Your task to perform on an android device: uninstall "LiveIn - Share Your Moment" Image 0: 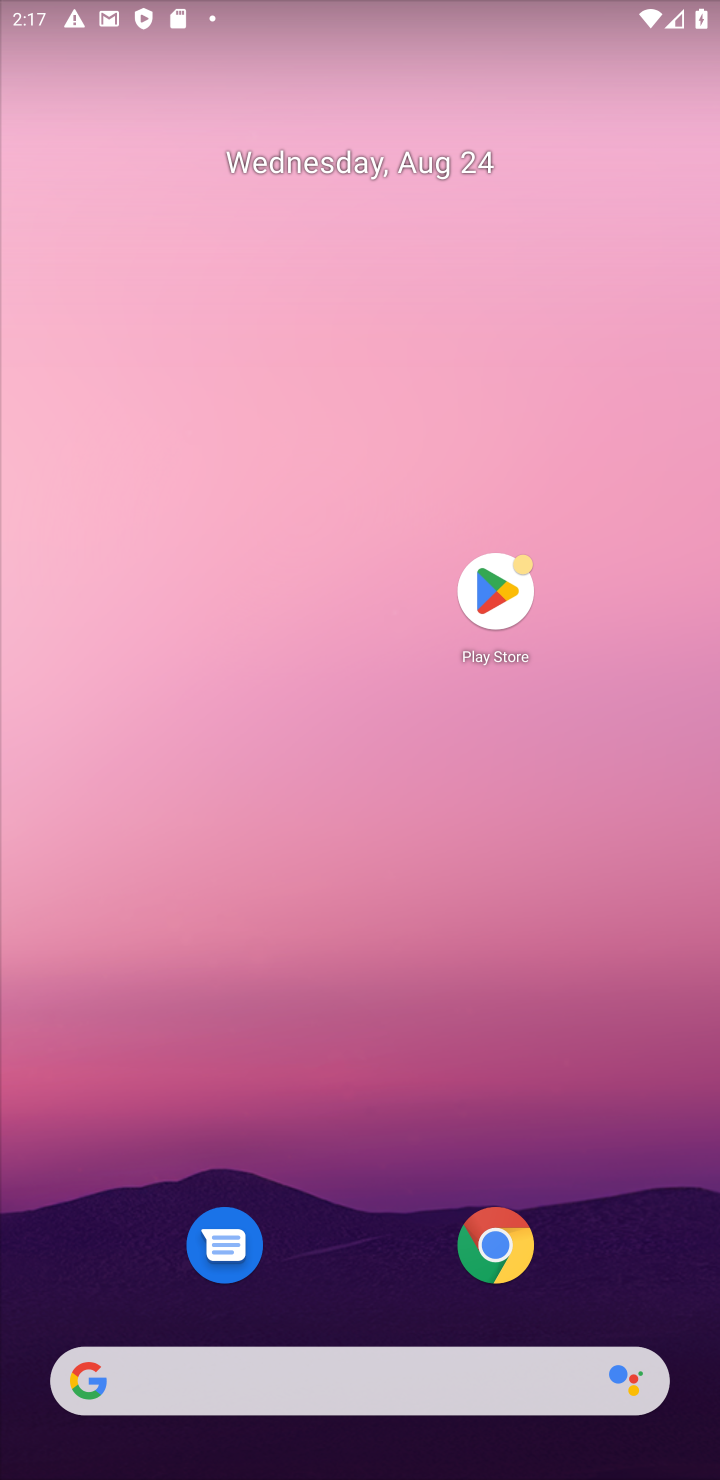
Step 0: click (505, 602)
Your task to perform on an android device: uninstall "LiveIn - Share Your Moment" Image 1: 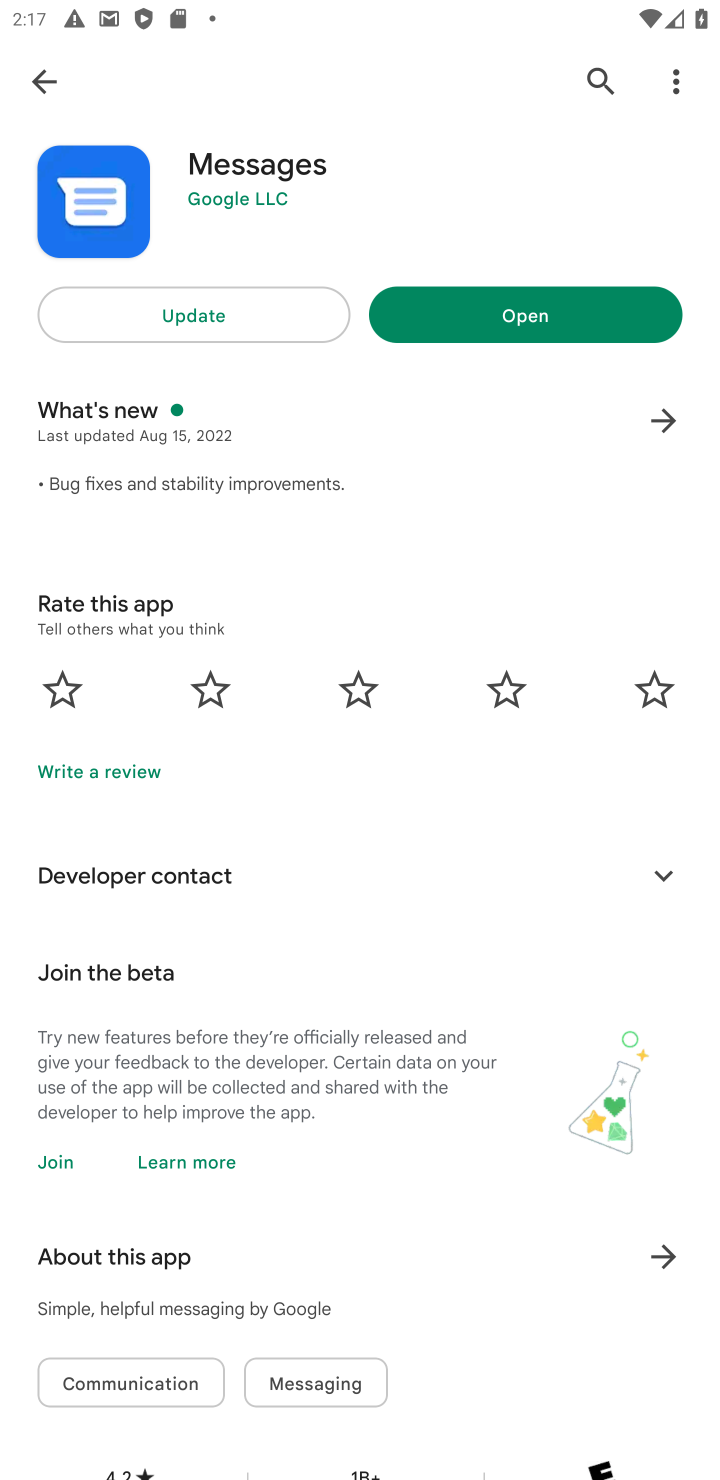
Step 1: click (590, 73)
Your task to perform on an android device: uninstall "LiveIn - Share Your Moment" Image 2: 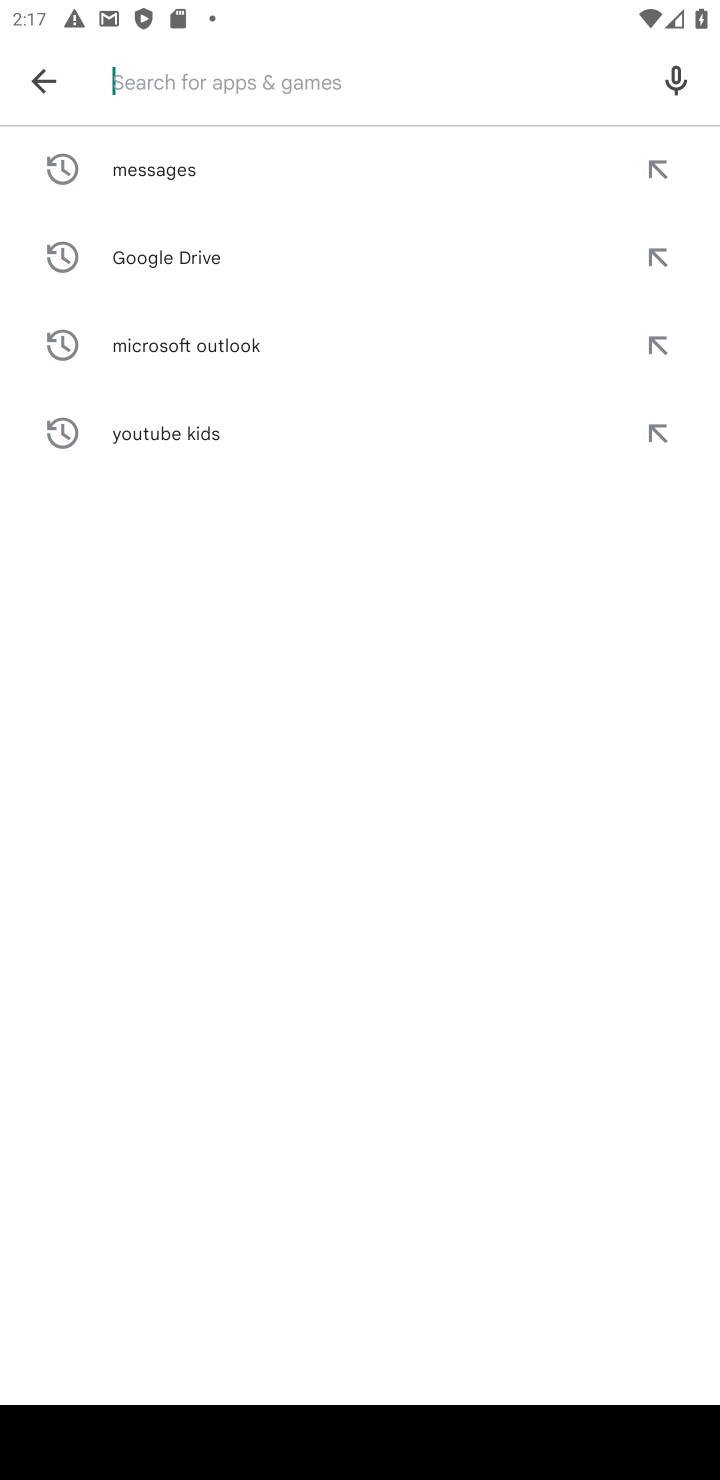
Step 2: type "LiveIn - Share Your Moment"
Your task to perform on an android device: uninstall "LiveIn - Share Your Moment" Image 3: 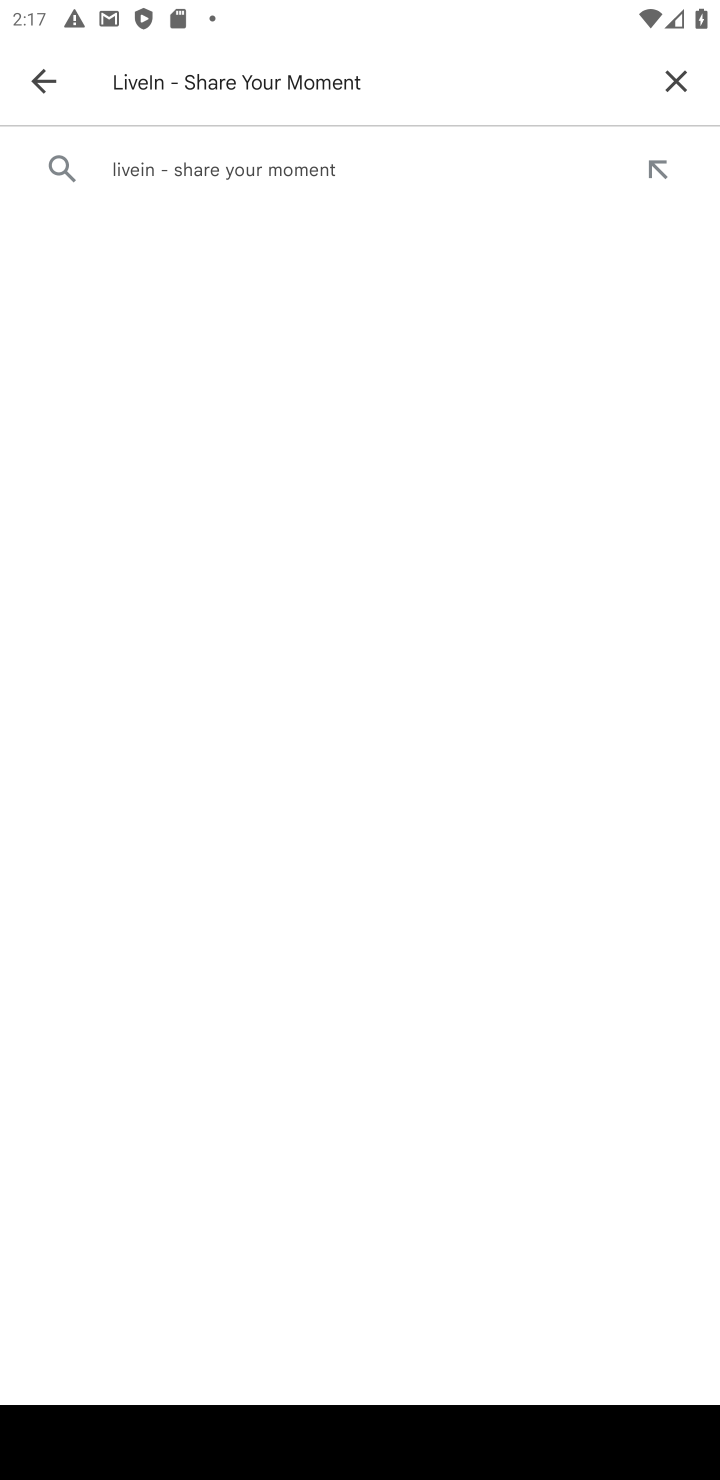
Step 3: click (247, 178)
Your task to perform on an android device: uninstall "LiveIn - Share Your Moment" Image 4: 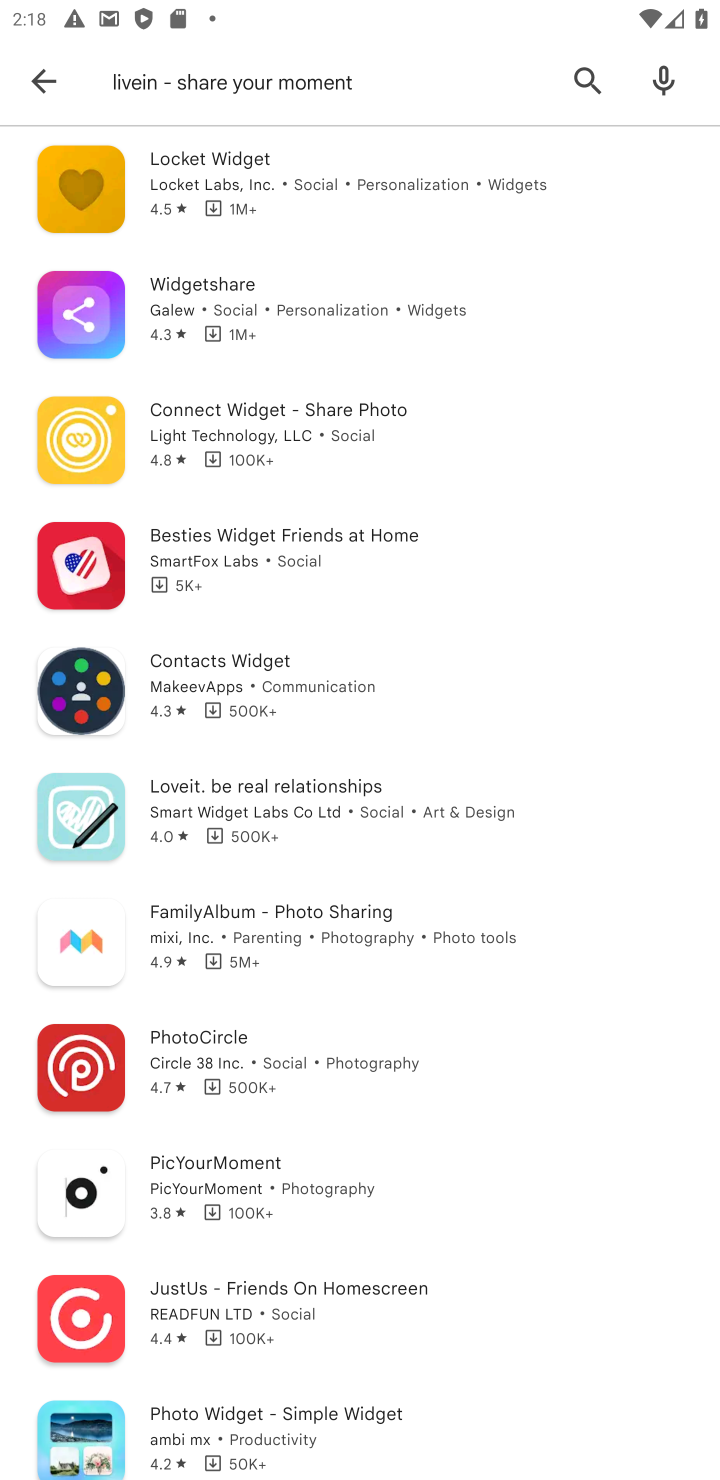
Step 4: task complete